Your task to perform on an android device: change the upload size in google photos Image 0: 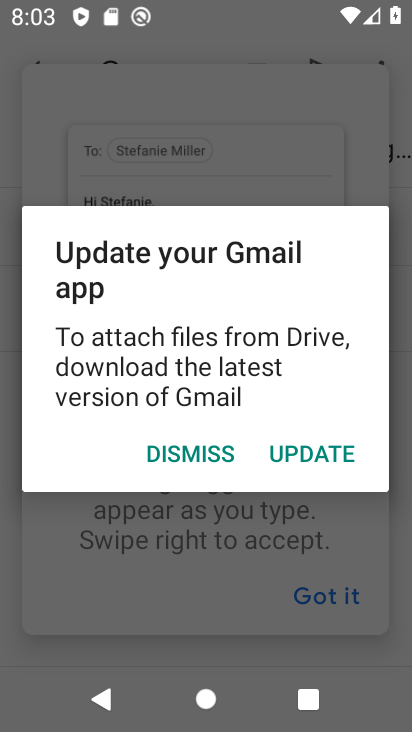
Step 0: press home button
Your task to perform on an android device: change the upload size in google photos Image 1: 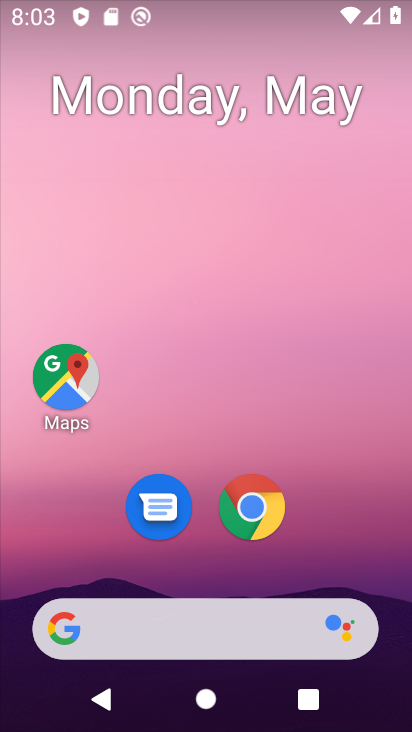
Step 1: click (232, 1)
Your task to perform on an android device: change the upload size in google photos Image 2: 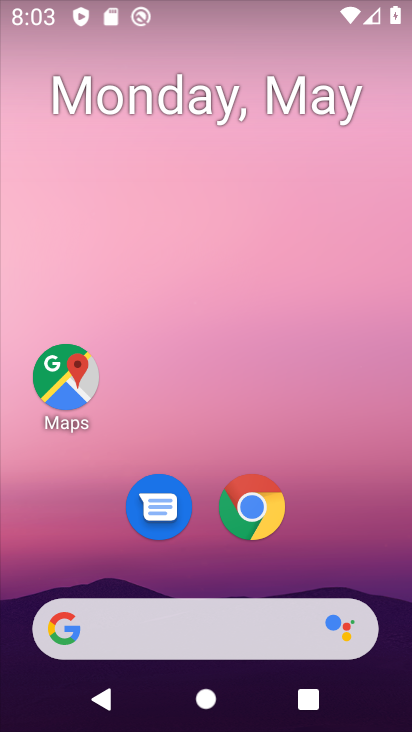
Step 2: drag from (203, 549) to (186, 0)
Your task to perform on an android device: change the upload size in google photos Image 3: 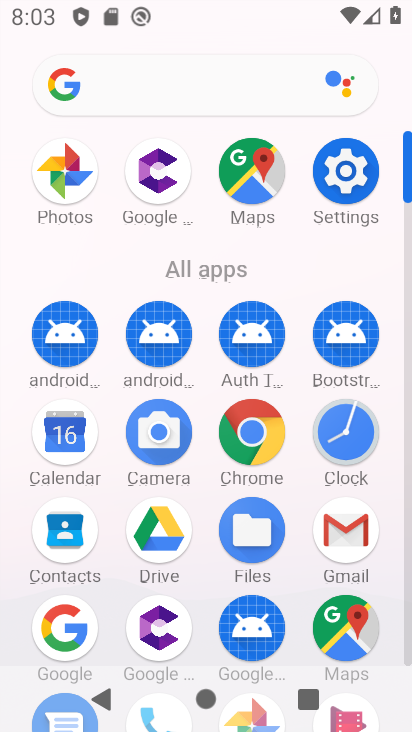
Step 3: click (353, 195)
Your task to perform on an android device: change the upload size in google photos Image 4: 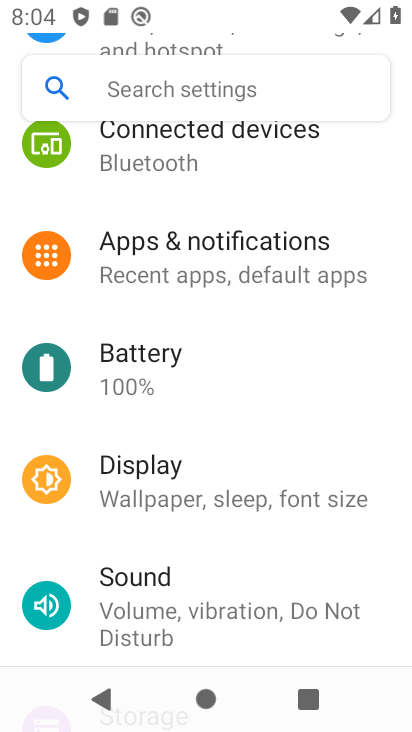
Step 4: press home button
Your task to perform on an android device: change the upload size in google photos Image 5: 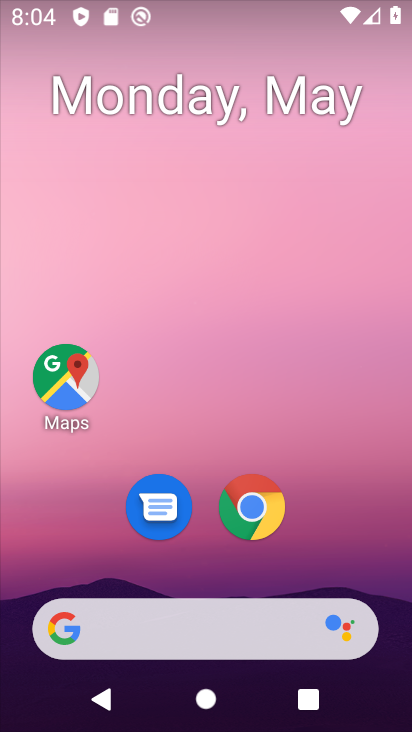
Step 5: drag from (215, 577) to (296, 12)
Your task to perform on an android device: change the upload size in google photos Image 6: 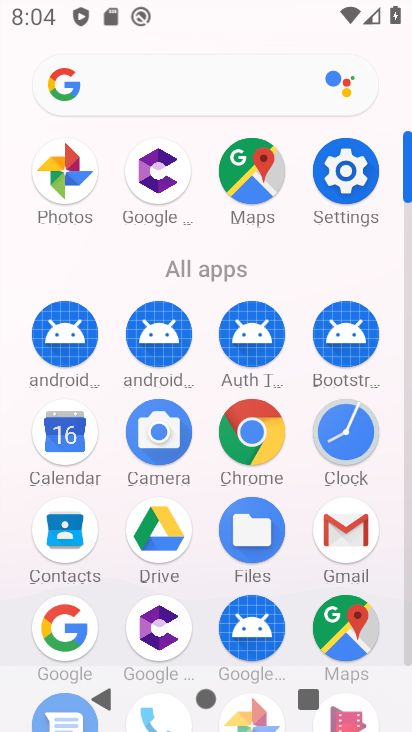
Step 6: drag from (222, 579) to (249, 111)
Your task to perform on an android device: change the upload size in google photos Image 7: 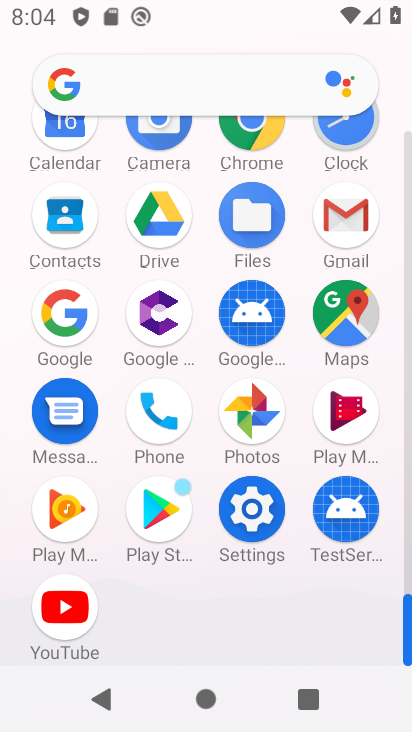
Step 7: click (261, 426)
Your task to perform on an android device: change the upload size in google photos Image 8: 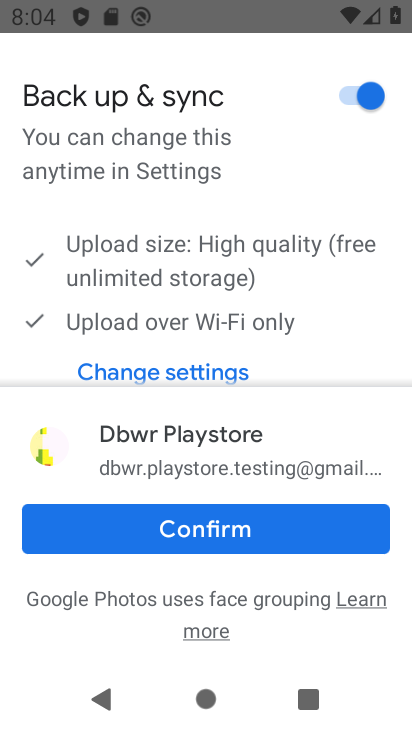
Step 8: click (241, 539)
Your task to perform on an android device: change the upload size in google photos Image 9: 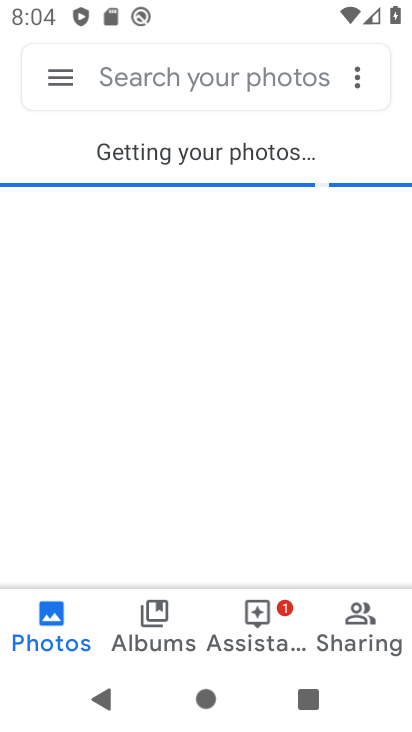
Step 9: click (64, 73)
Your task to perform on an android device: change the upload size in google photos Image 10: 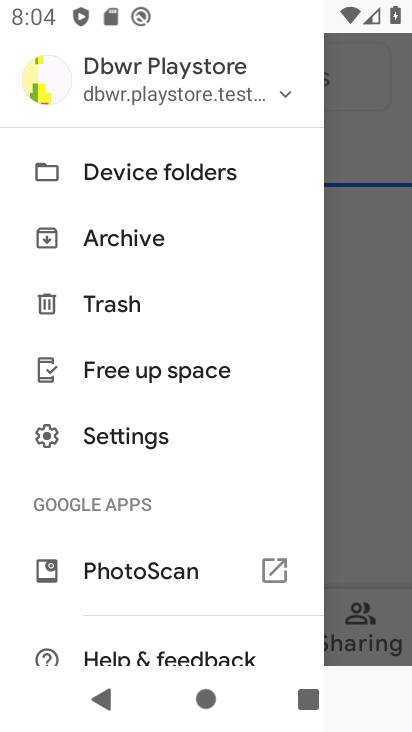
Step 10: click (140, 440)
Your task to perform on an android device: change the upload size in google photos Image 11: 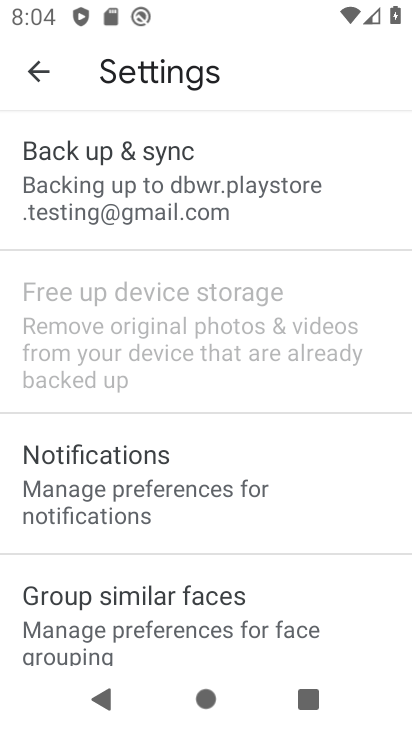
Step 11: click (175, 198)
Your task to perform on an android device: change the upload size in google photos Image 12: 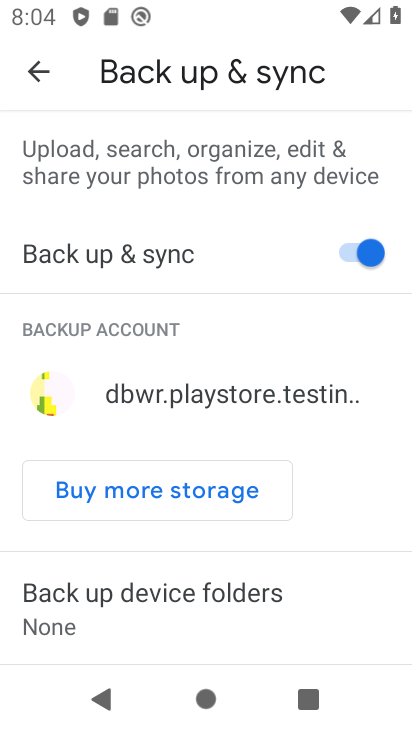
Step 12: drag from (176, 460) to (230, 245)
Your task to perform on an android device: change the upload size in google photos Image 13: 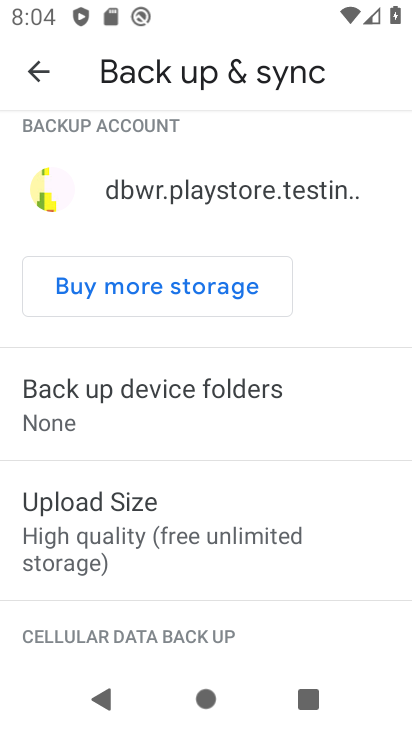
Step 13: click (178, 536)
Your task to perform on an android device: change the upload size in google photos Image 14: 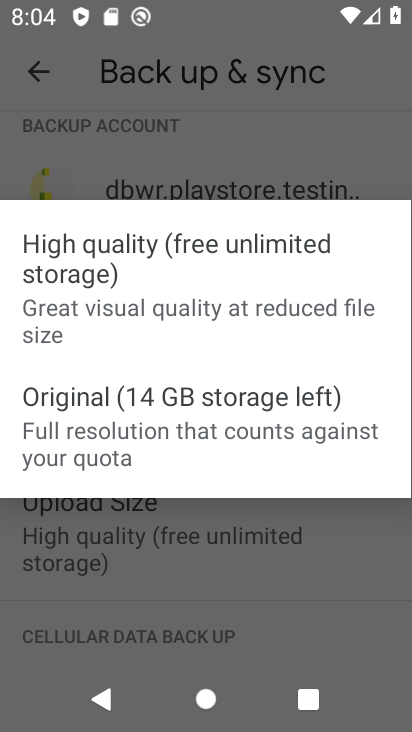
Step 14: click (169, 437)
Your task to perform on an android device: change the upload size in google photos Image 15: 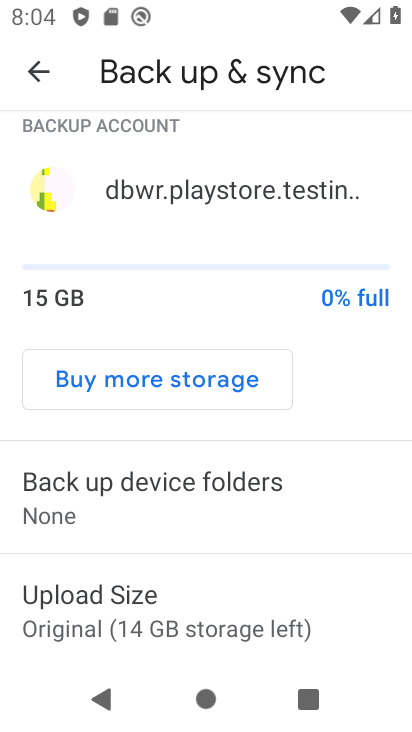
Step 15: task complete